Your task to perform on an android device: turn off javascript in the chrome app Image 0: 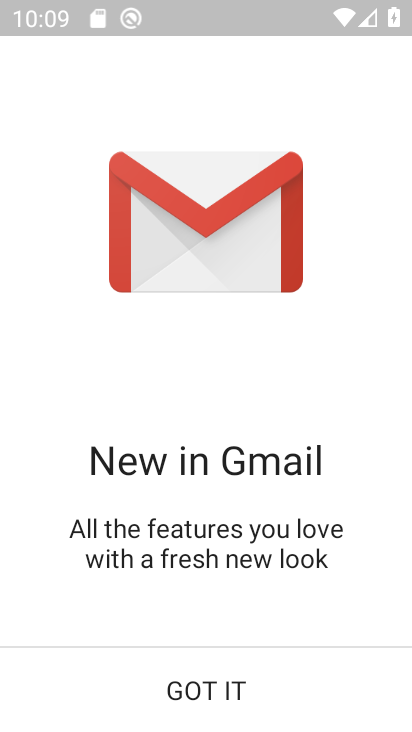
Step 0: press home button
Your task to perform on an android device: turn off javascript in the chrome app Image 1: 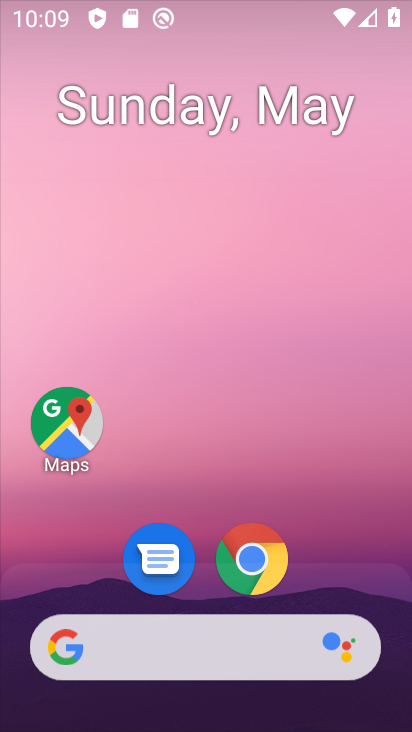
Step 1: drag from (380, 595) to (321, 73)
Your task to perform on an android device: turn off javascript in the chrome app Image 2: 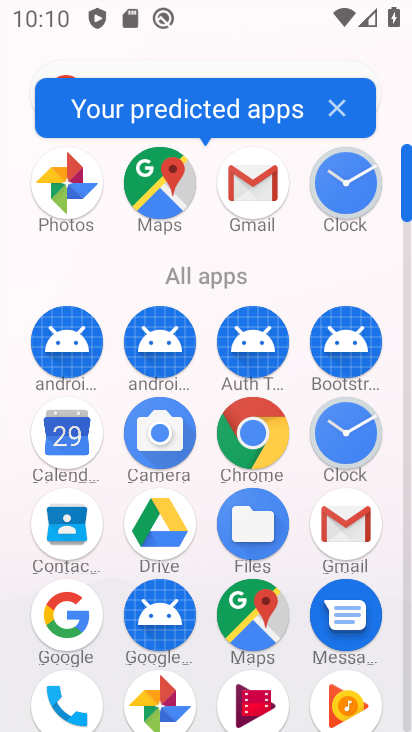
Step 2: click (245, 456)
Your task to perform on an android device: turn off javascript in the chrome app Image 3: 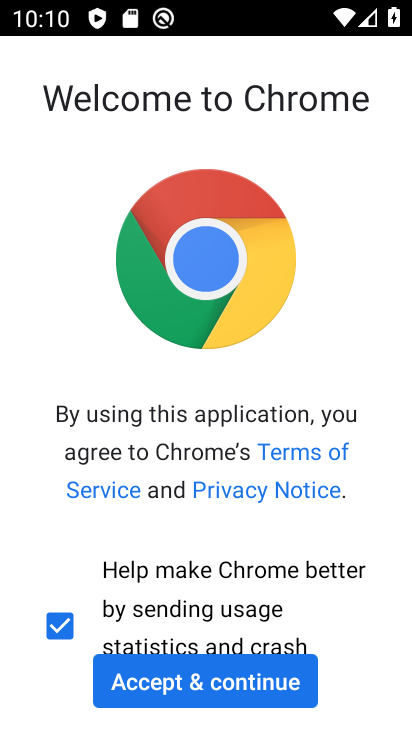
Step 3: click (264, 695)
Your task to perform on an android device: turn off javascript in the chrome app Image 4: 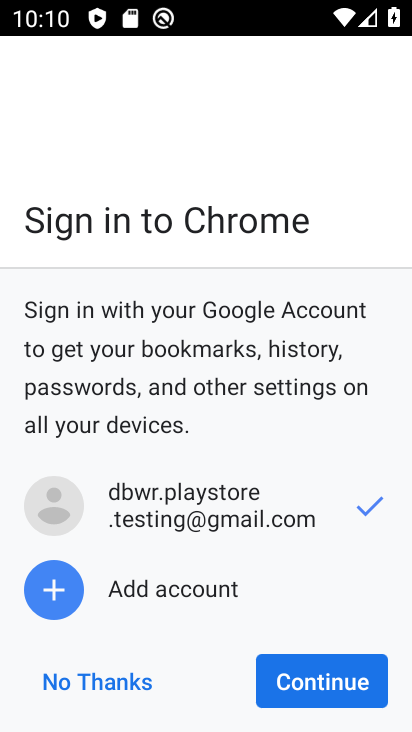
Step 4: click (315, 690)
Your task to perform on an android device: turn off javascript in the chrome app Image 5: 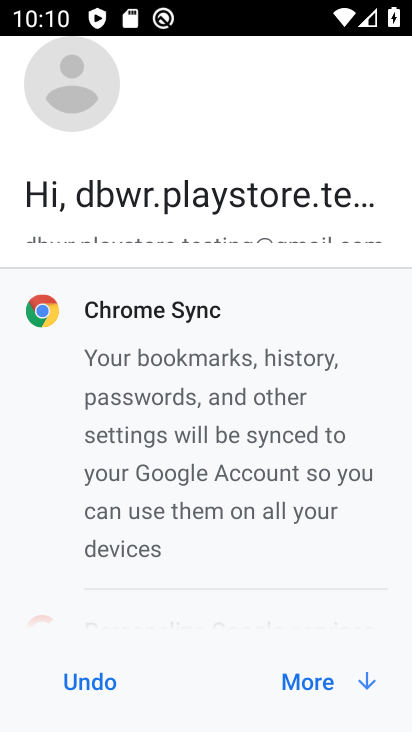
Step 5: click (315, 692)
Your task to perform on an android device: turn off javascript in the chrome app Image 6: 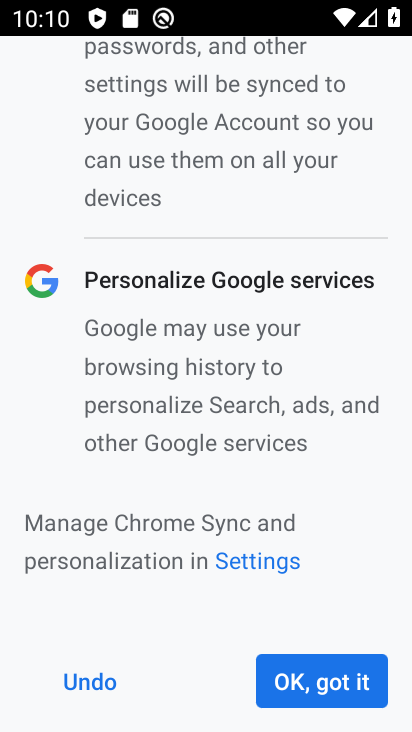
Step 6: click (315, 692)
Your task to perform on an android device: turn off javascript in the chrome app Image 7: 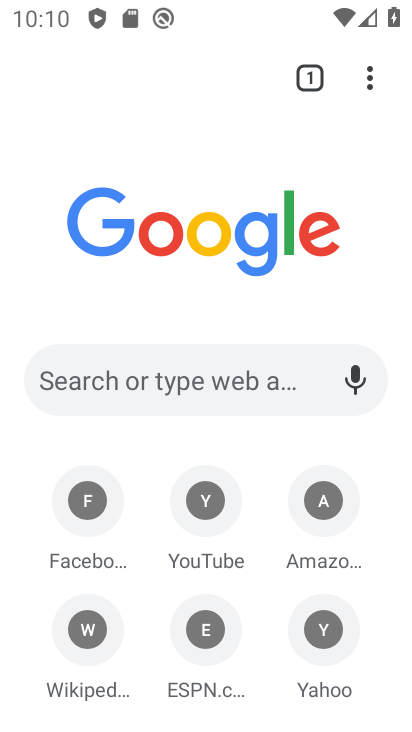
Step 7: drag from (361, 84) to (219, 623)
Your task to perform on an android device: turn off javascript in the chrome app Image 8: 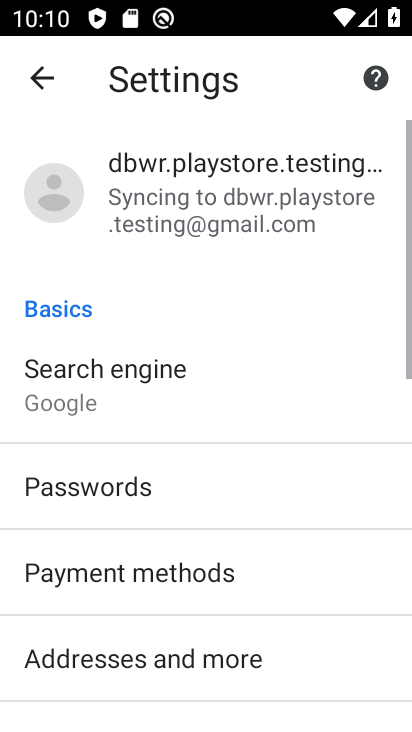
Step 8: drag from (307, 648) to (315, 249)
Your task to perform on an android device: turn off javascript in the chrome app Image 9: 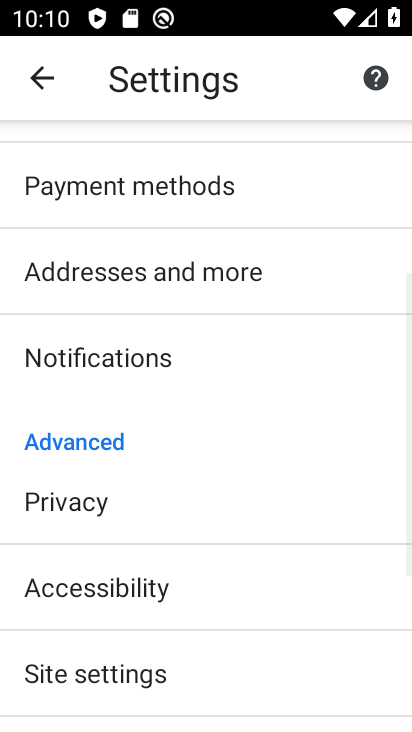
Step 9: drag from (343, 625) to (341, 279)
Your task to perform on an android device: turn off javascript in the chrome app Image 10: 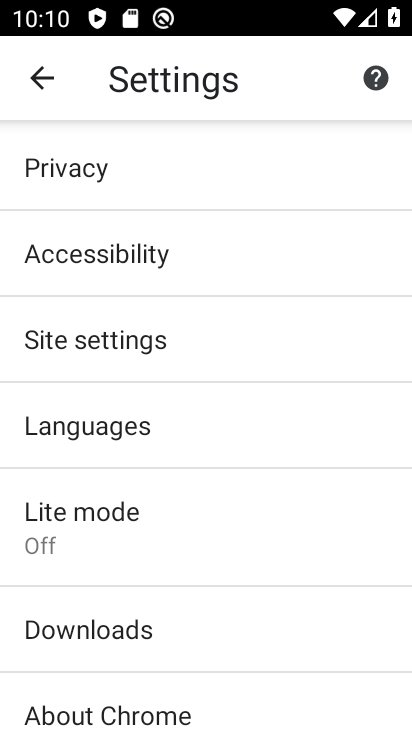
Step 10: click (204, 348)
Your task to perform on an android device: turn off javascript in the chrome app Image 11: 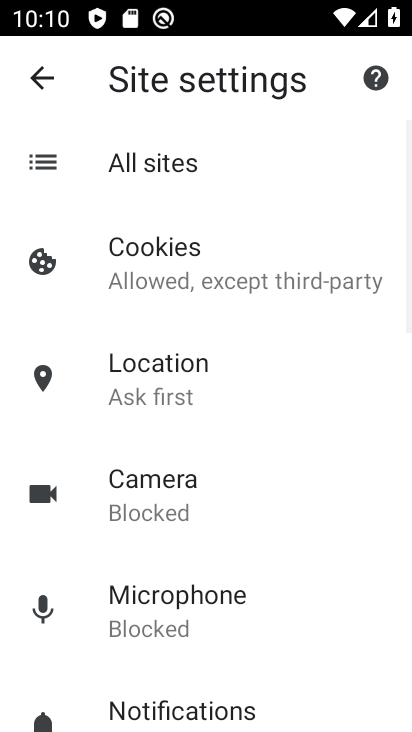
Step 11: drag from (285, 658) to (272, 282)
Your task to perform on an android device: turn off javascript in the chrome app Image 12: 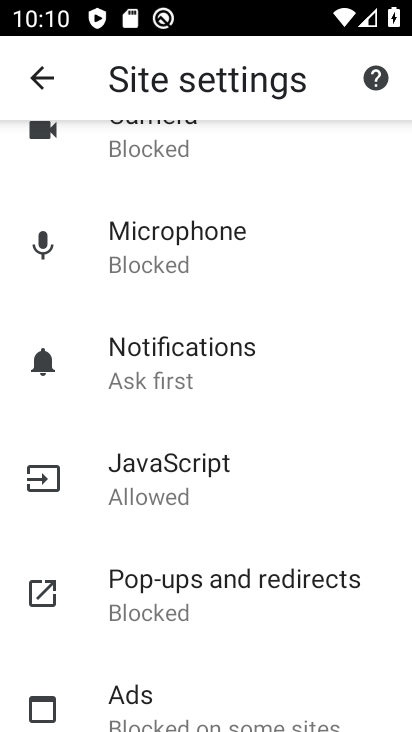
Step 12: click (258, 477)
Your task to perform on an android device: turn off javascript in the chrome app Image 13: 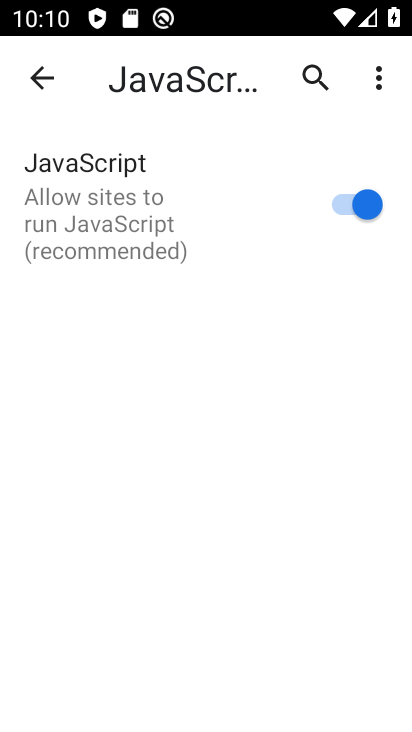
Step 13: click (351, 208)
Your task to perform on an android device: turn off javascript in the chrome app Image 14: 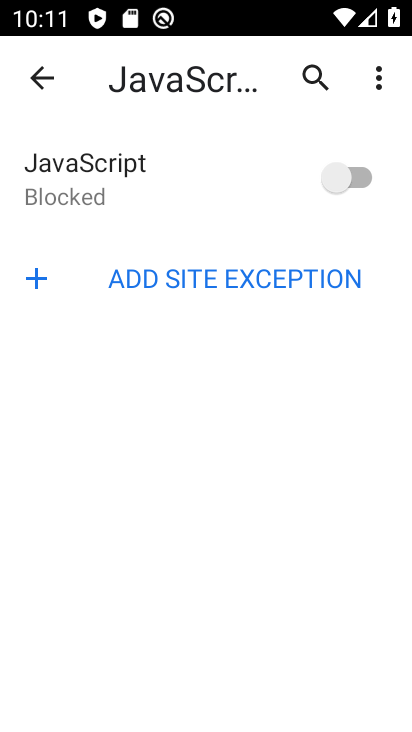
Step 14: task complete